Your task to perform on an android device: Go to notification settings Image 0: 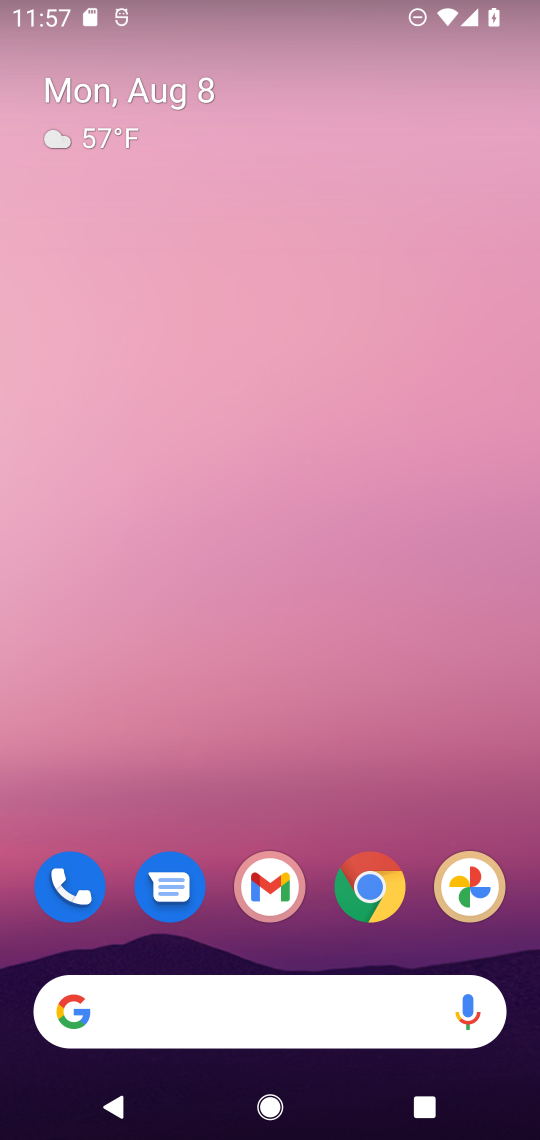
Step 0: drag from (304, 778) to (216, 184)
Your task to perform on an android device: Go to notification settings Image 1: 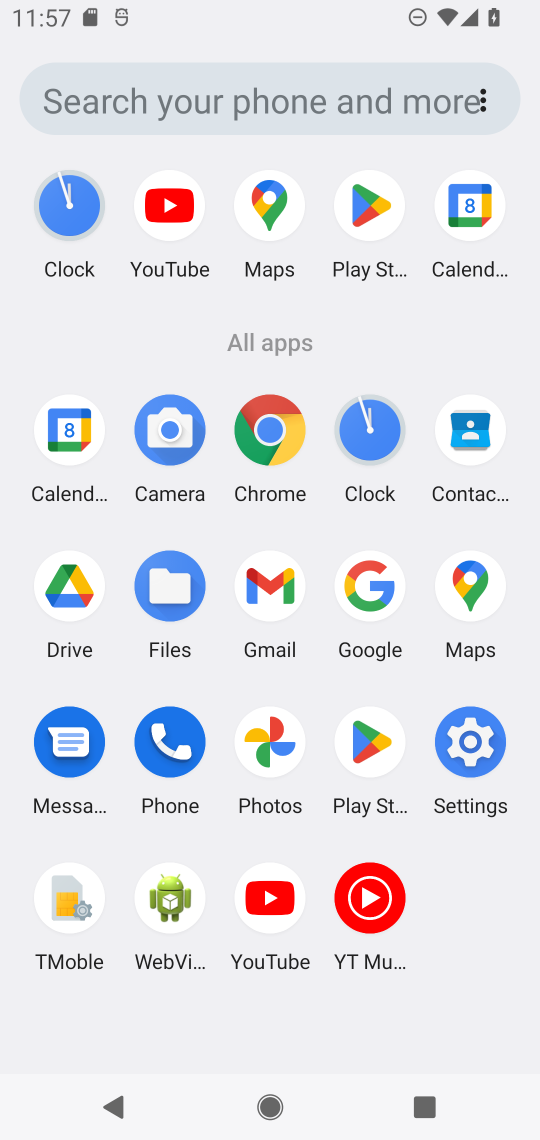
Step 1: click (474, 754)
Your task to perform on an android device: Go to notification settings Image 2: 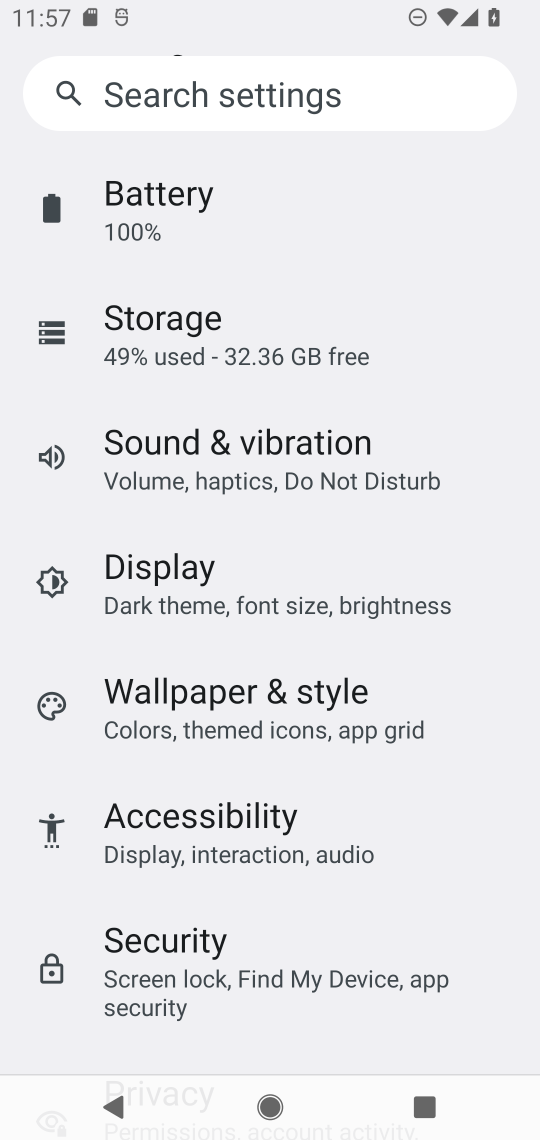
Step 2: drag from (297, 269) to (267, 913)
Your task to perform on an android device: Go to notification settings Image 3: 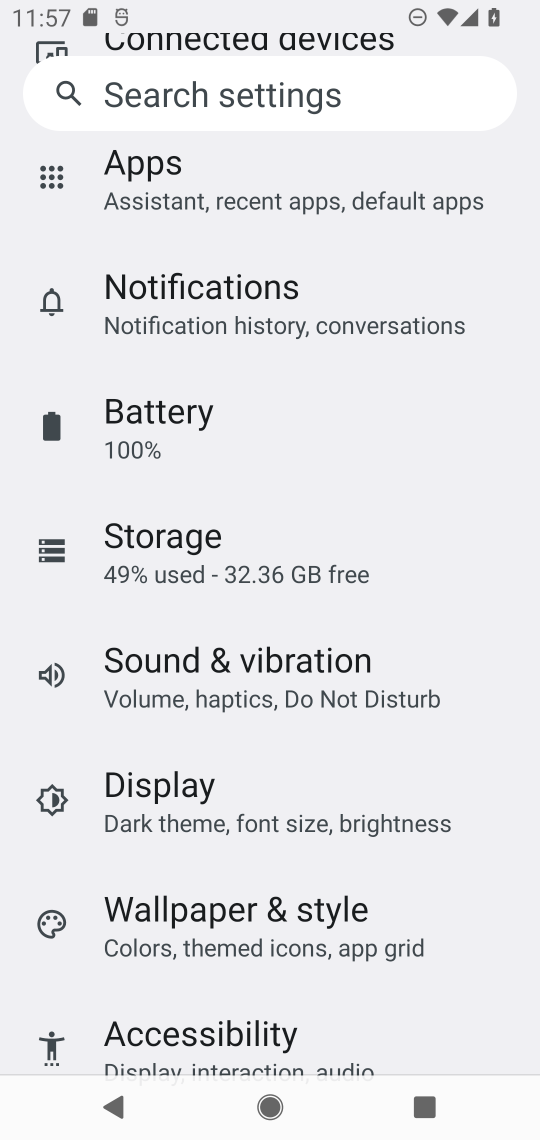
Step 3: click (213, 290)
Your task to perform on an android device: Go to notification settings Image 4: 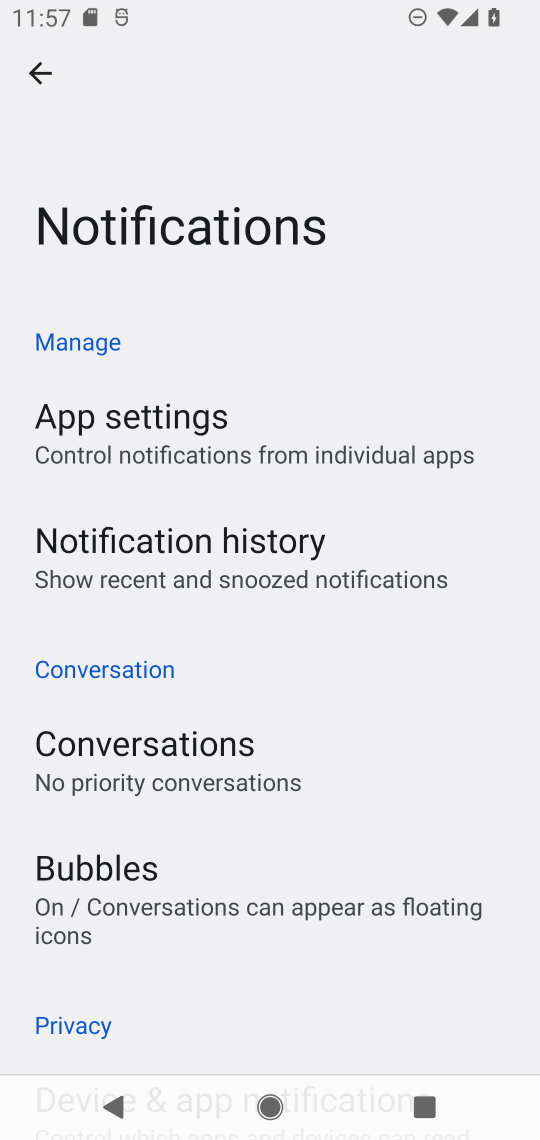
Step 4: task complete